Your task to perform on an android device: Open the Play Movies app and select the watchlist tab. Image 0: 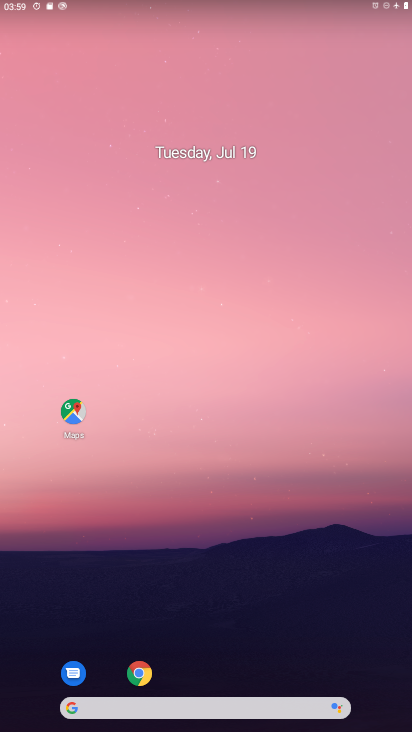
Step 0: drag from (209, 660) to (217, 103)
Your task to perform on an android device: Open the Play Movies app and select the watchlist tab. Image 1: 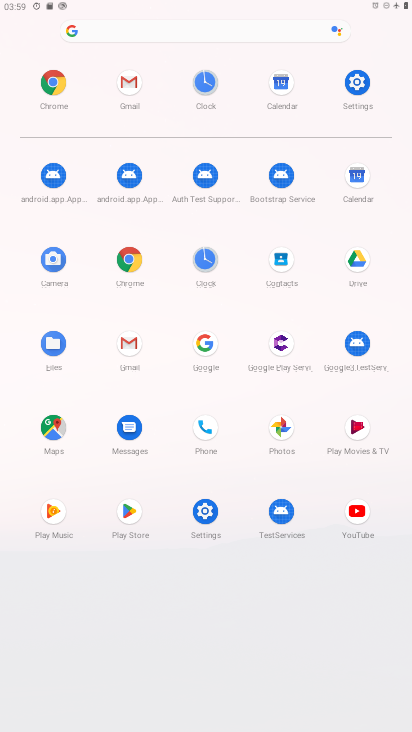
Step 1: click (356, 438)
Your task to perform on an android device: Open the Play Movies app and select the watchlist tab. Image 2: 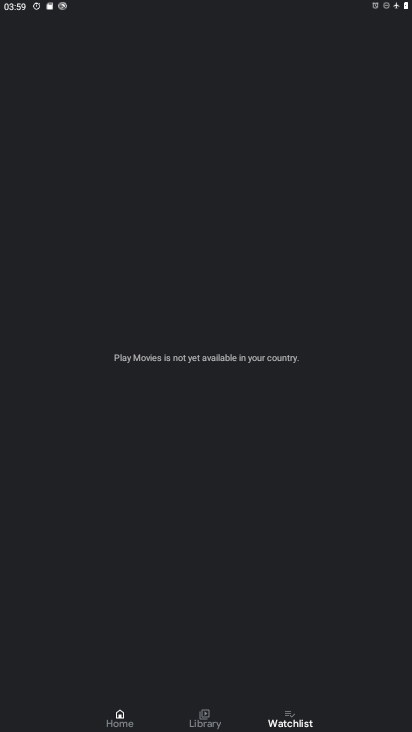
Step 2: task complete